Your task to perform on an android device: open chrome privacy settings Image 0: 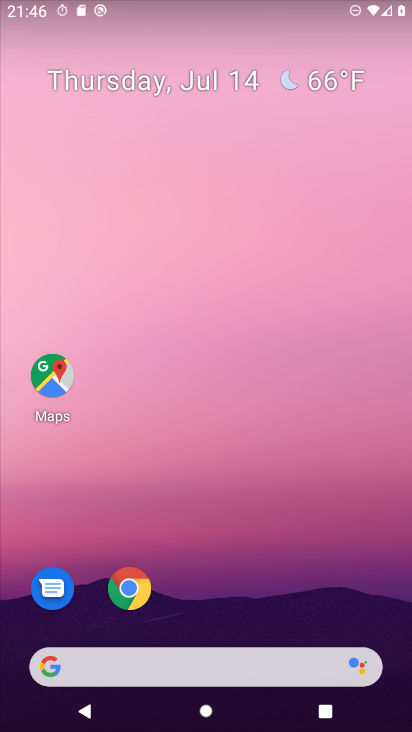
Step 0: drag from (353, 598) to (368, 45)
Your task to perform on an android device: open chrome privacy settings Image 1: 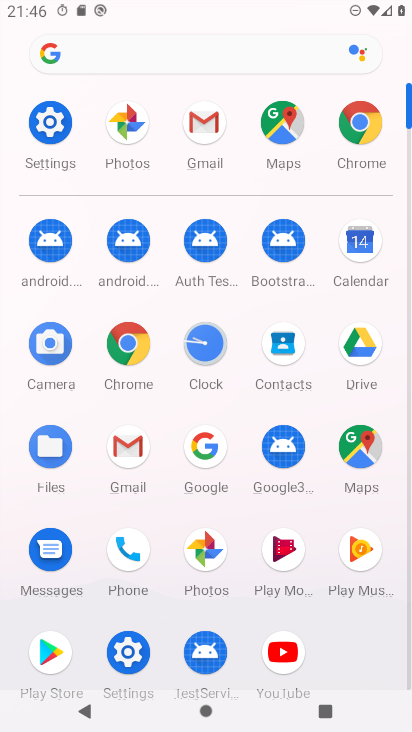
Step 1: click (369, 132)
Your task to perform on an android device: open chrome privacy settings Image 2: 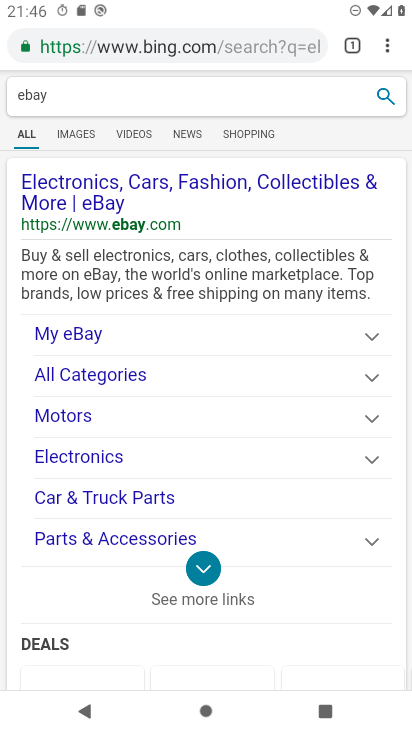
Step 2: click (387, 47)
Your task to perform on an android device: open chrome privacy settings Image 3: 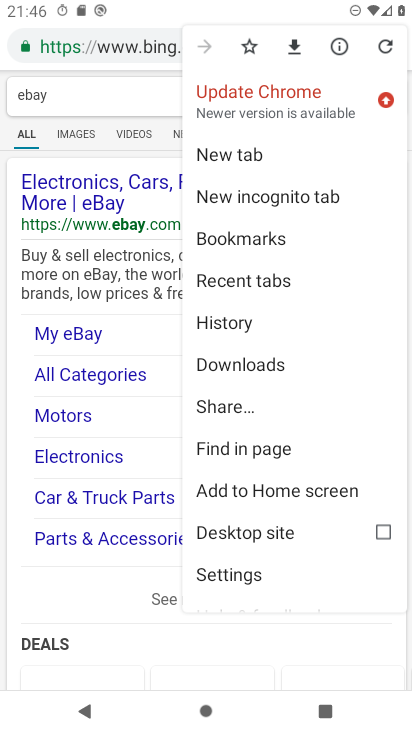
Step 3: click (243, 576)
Your task to perform on an android device: open chrome privacy settings Image 4: 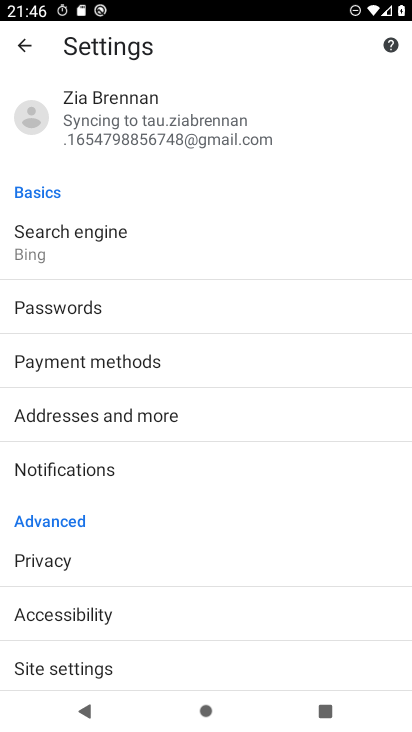
Step 4: click (194, 561)
Your task to perform on an android device: open chrome privacy settings Image 5: 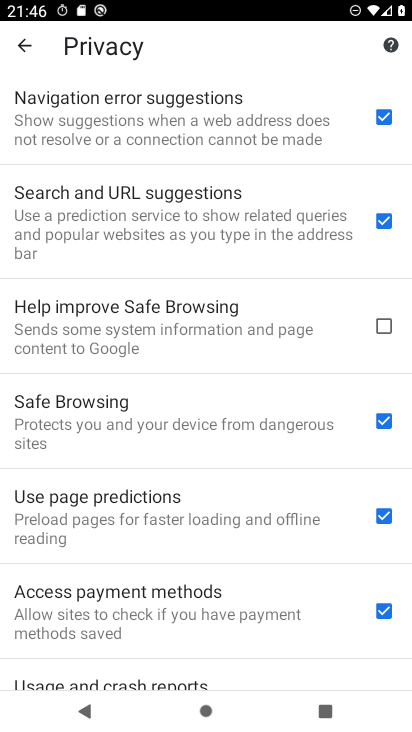
Step 5: task complete